Your task to perform on an android device: Open Google Maps Image 0: 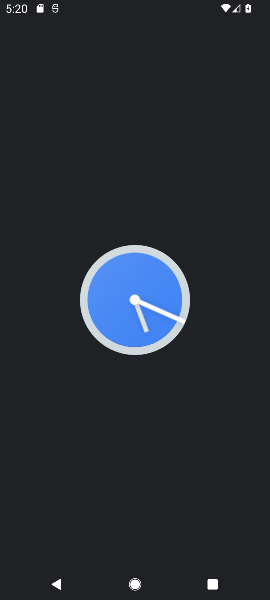
Step 0: press home button
Your task to perform on an android device: Open Google Maps Image 1: 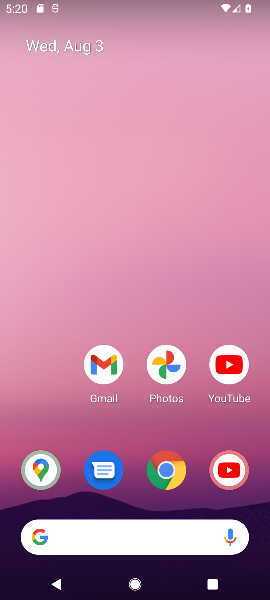
Step 1: click (50, 469)
Your task to perform on an android device: Open Google Maps Image 2: 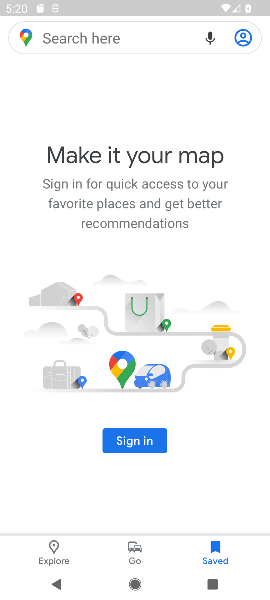
Step 2: task complete